Your task to perform on an android device: Go to ESPN.com Image 0: 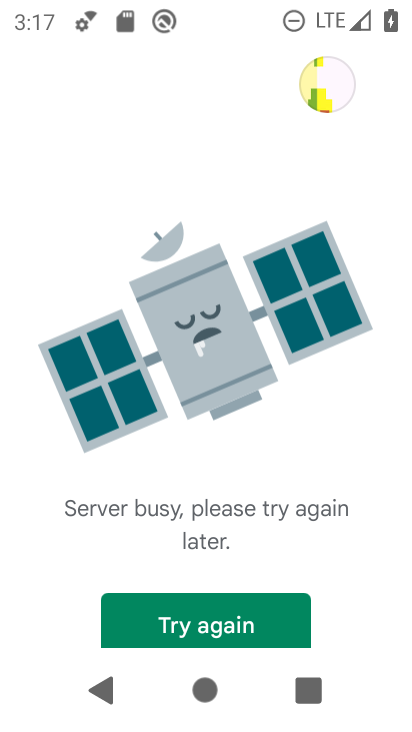
Step 0: press home button
Your task to perform on an android device: Go to ESPN.com Image 1: 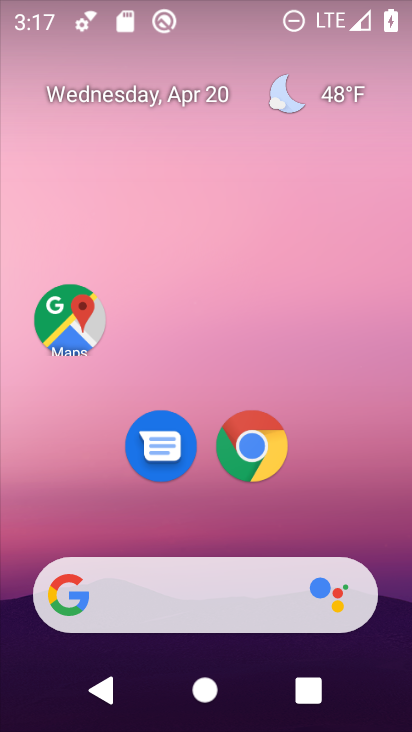
Step 1: click (254, 446)
Your task to perform on an android device: Go to ESPN.com Image 2: 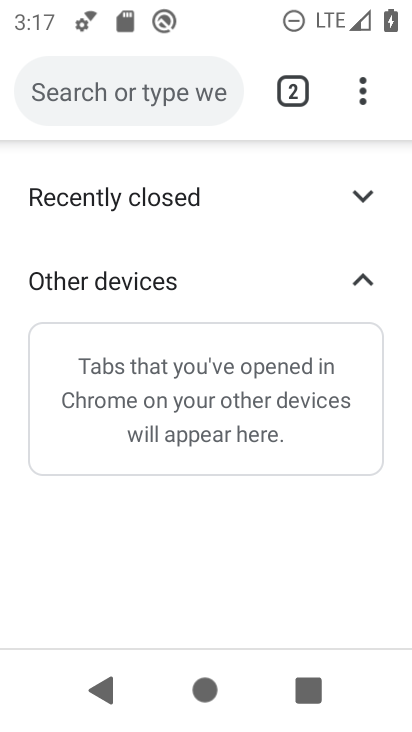
Step 2: click (195, 105)
Your task to perform on an android device: Go to ESPN.com Image 3: 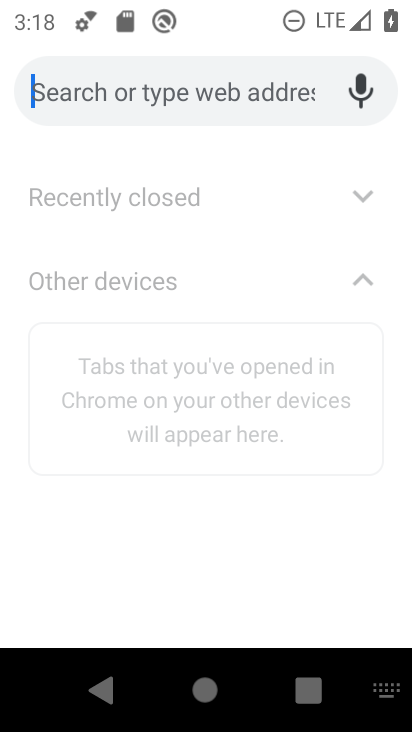
Step 3: type "ESPN.com"
Your task to perform on an android device: Go to ESPN.com Image 4: 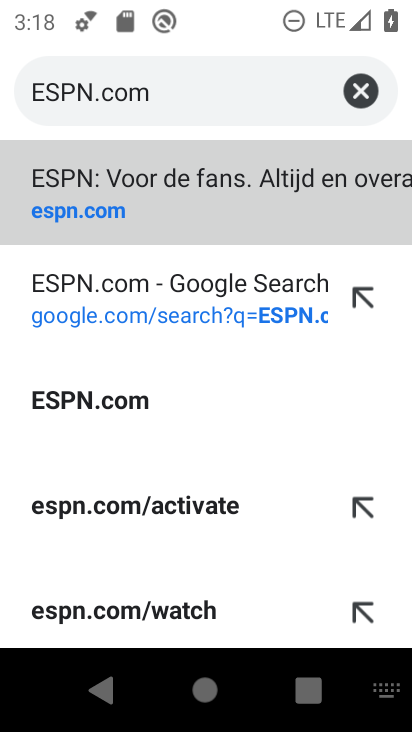
Step 4: click (144, 185)
Your task to perform on an android device: Go to ESPN.com Image 5: 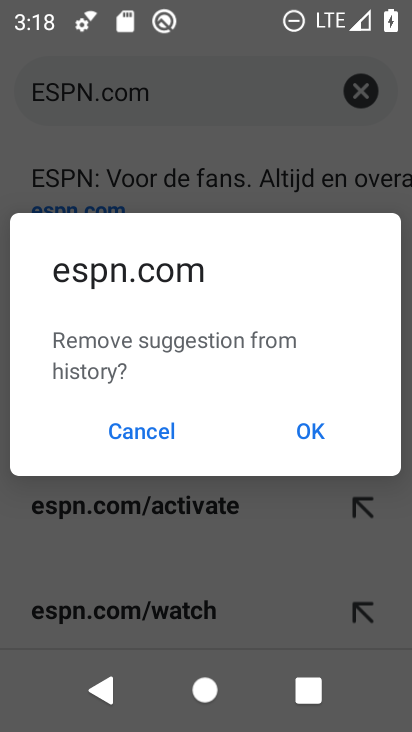
Step 5: click (161, 434)
Your task to perform on an android device: Go to ESPN.com Image 6: 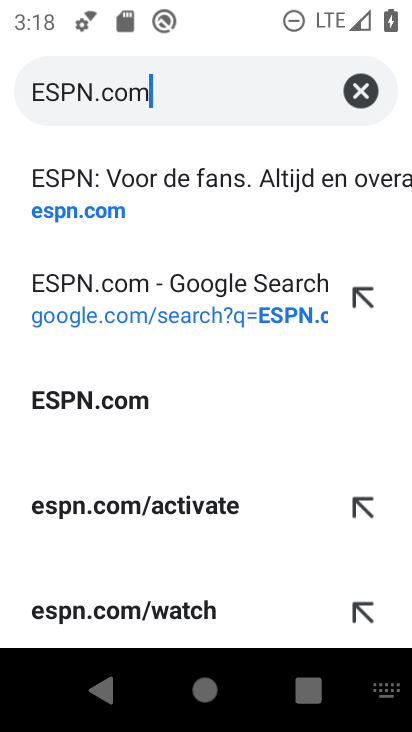
Step 6: click (134, 282)
Your task to perform on an android device: Go to ESPN.com Image 7: 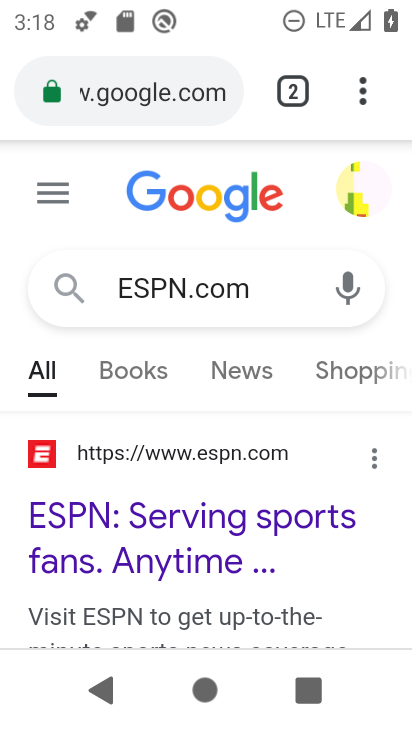
Step 7: task complete